Your task to perform on an android device: What's the weather? Image 0: 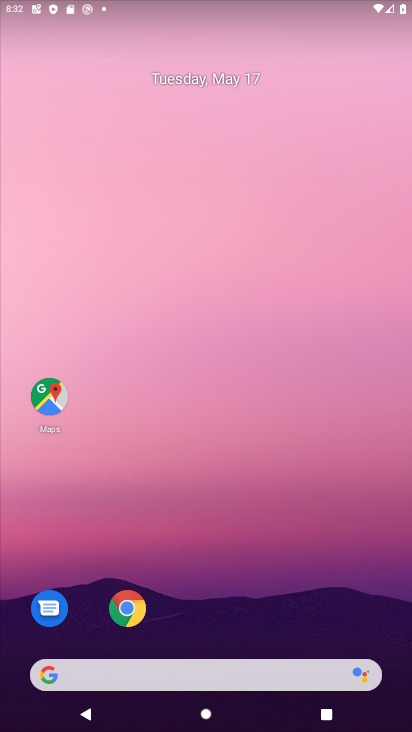
Step 0: click (156, 673)
Your task to perform on an android device: What's the weather? Image 1: 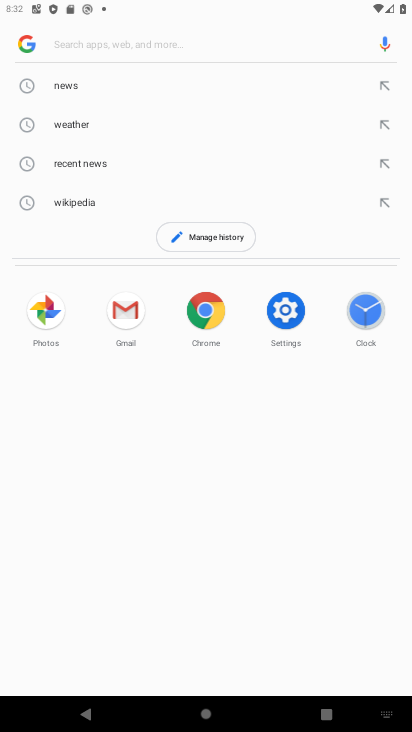
Step 1: click (55, 128)
Your task to perform on an android device: What's the weather? Image 2: 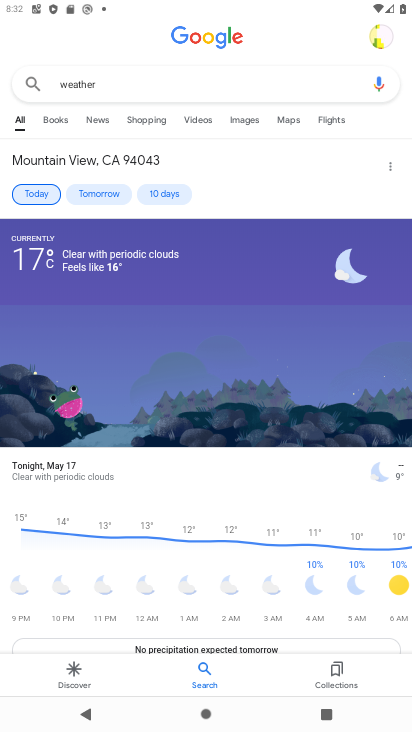
Step 2: task complete